Your task to perform on an android device: Open the web browser Image 0: 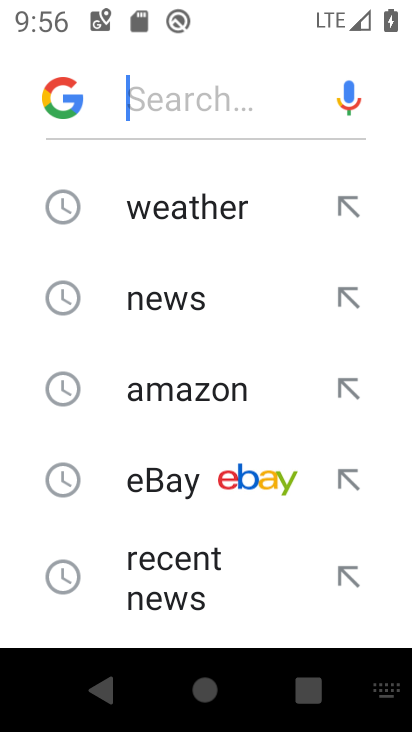
Step 0: press home button
Your task to perform on an android device: Open the web browser Image 1: 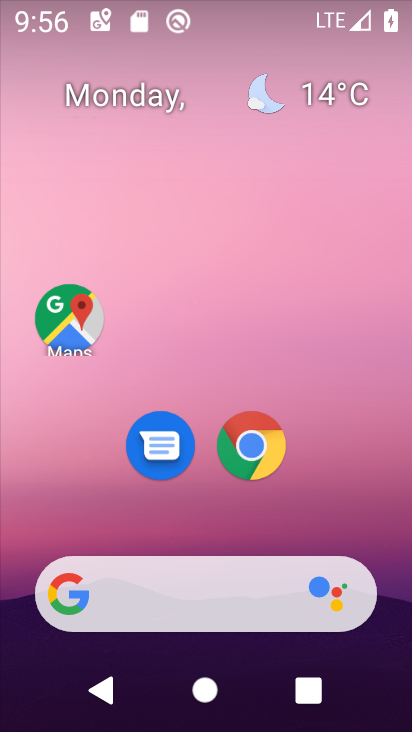
Step 1: click (69, 318)
Your task to perform on an android device: Open the web browser Image 2: 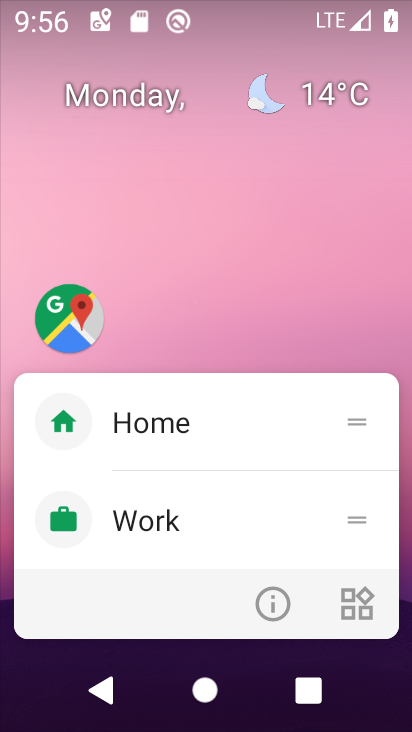
Step 2: click (222, 295)
Your task to perform on an android device: Open the web browser Image 3: 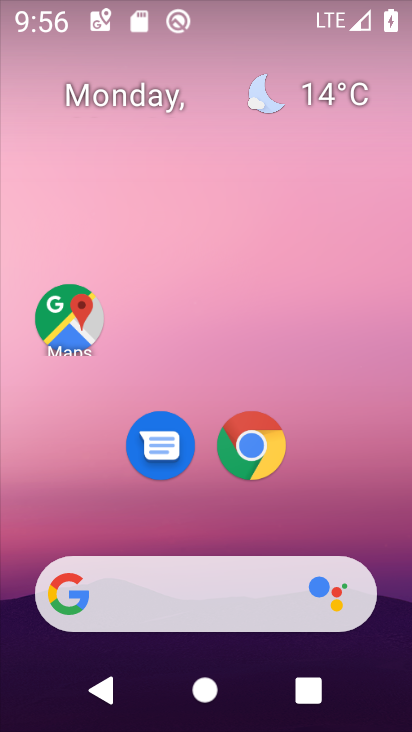
Step 3: click (251, 450)
Your task to perform on an android device: Open the web browser Image 4: 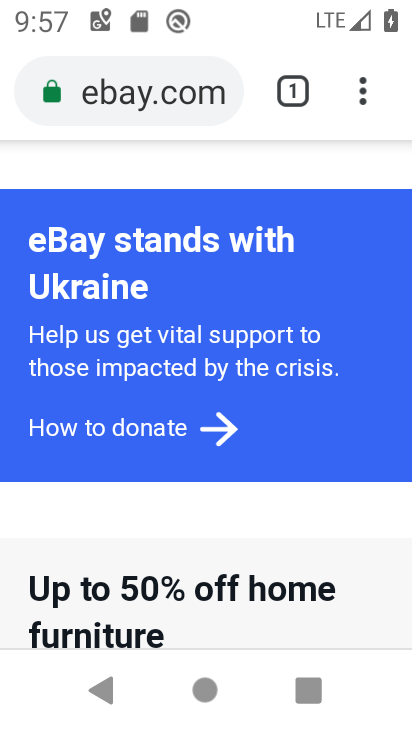
Step 4: task complete